Your task to perform on an android device: allow notifications from all sites in the chrome app Image 0: 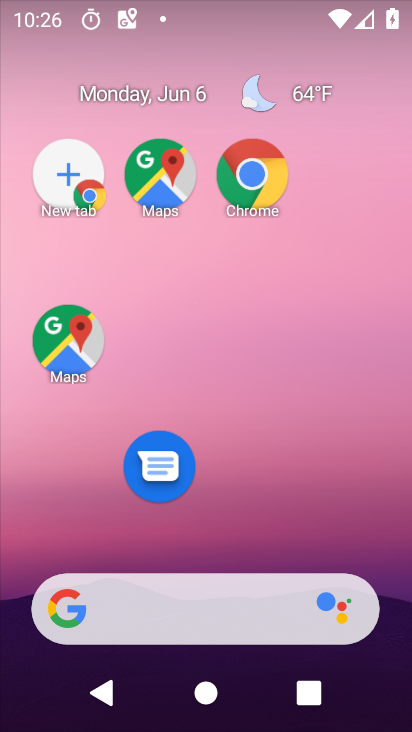
Step 0: drag from (209, 643) to (111, 99)
Your task to perform on an android device: allow notifications from all sites in the chrome app Image 1: 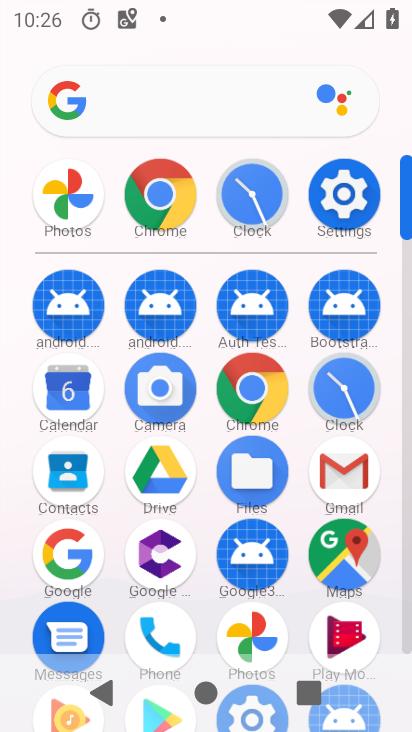
Step 1: click (244, 391)
Your task to perform on an android device: allow notifications from all sites in the chrome app Image 2: 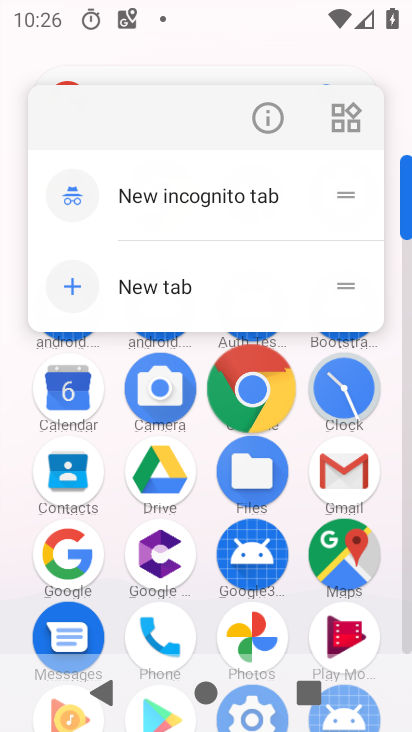
Step 2: click (250, 392)
Your task to perform on an android device: allow notifications from all sites in the chrome app Image 3: 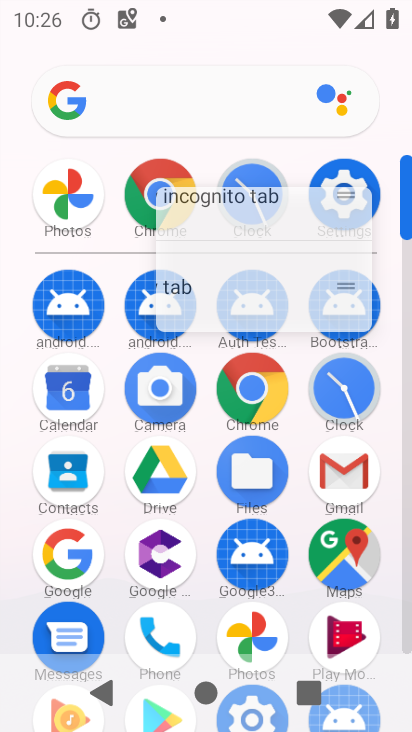
Step 3: click (255, 392)
Your task to perform on an android device: allow notifications from all sites in the chrome app Image 4: 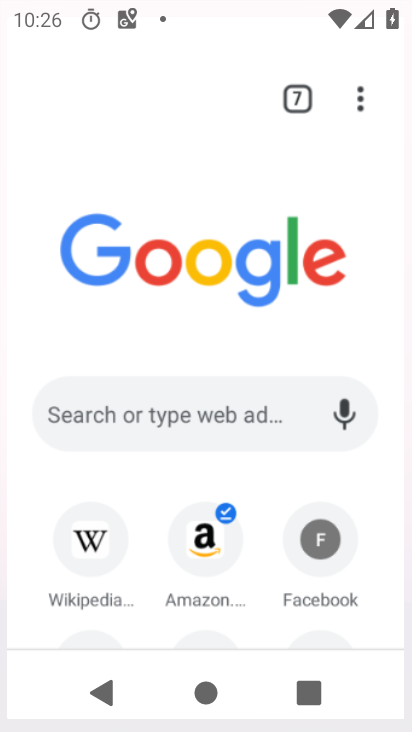
Step 4: click (259, 394)
Your task to perform on an android device: allow notifications from all sites in the chrome app Image 5: 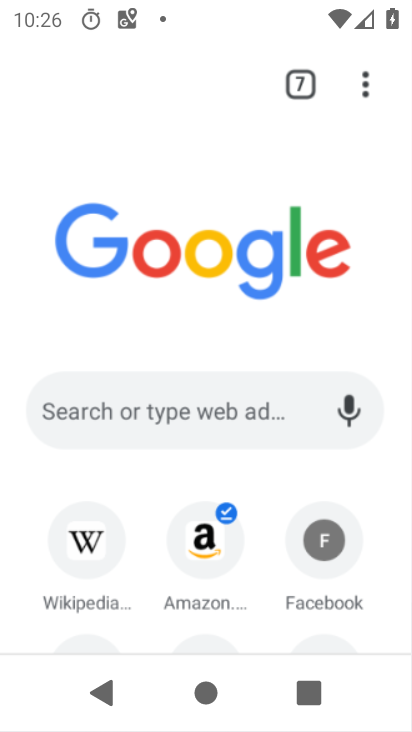
Step 5: click (260, 394)
Your task to perform on an android device: allow notifications from all sites in the chrome app Image 6: 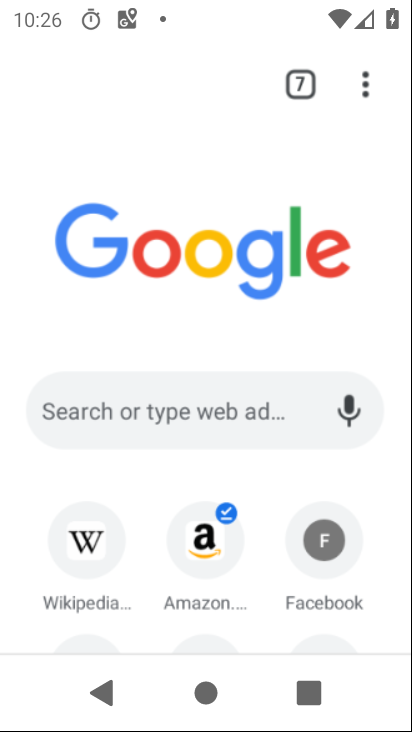
Step 6: click (255, 399)
Your task to perform on an android device: allow notifications from all sites in the chrome app Image 7: 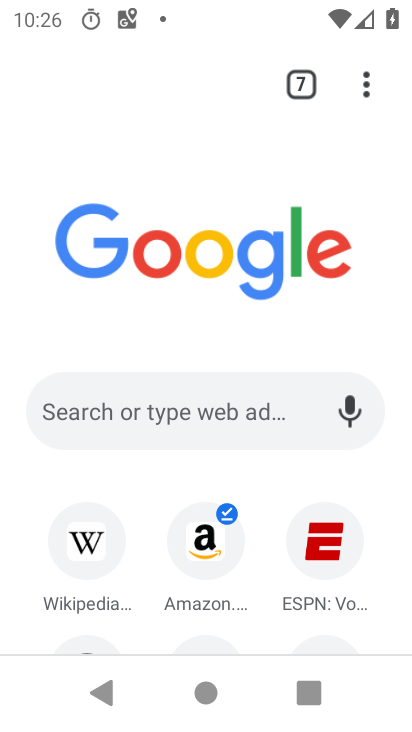
Step 7: drag from (359, 85) to (71, 516)
Your task to perform on an android device: allow notifications from all sites in the chrome app Image 8: 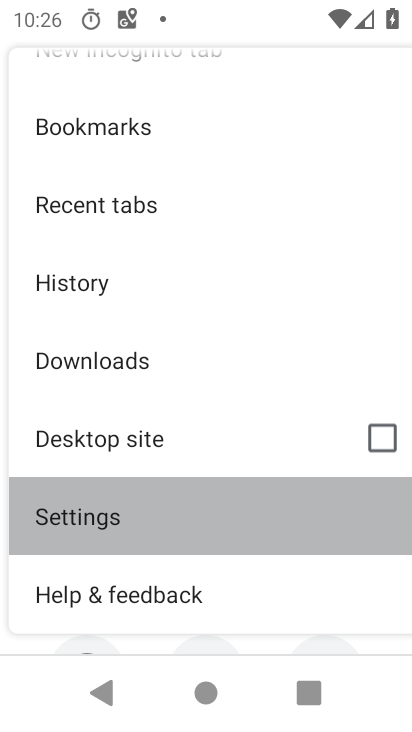
Step 8: click (67, 519)
Your task to perform on an android device: allow notifications from all sites in the chrome app Image 9: 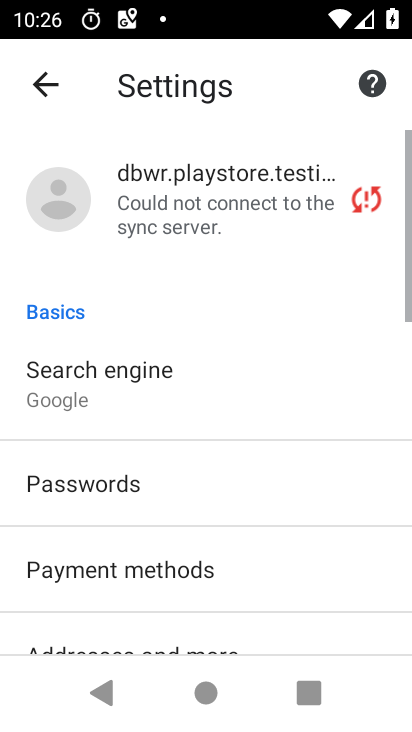
Step 9: drag from (170, 507) to (146, 175)
Your task to perform on an android device: allow notifications from all sites in the chrome app Image 10: 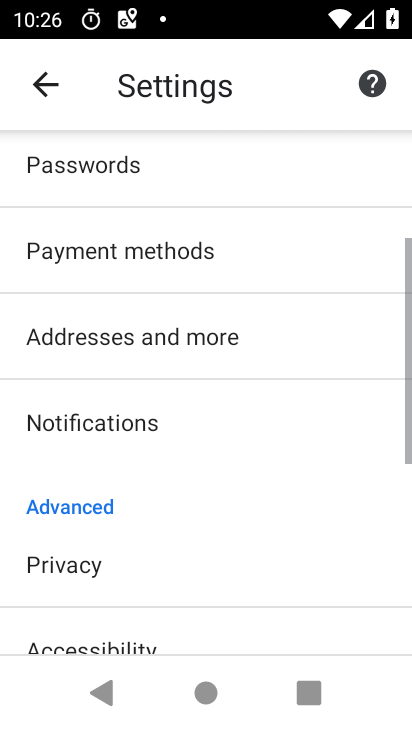
Step 10: drag from (144, 506) to (142, 172)
Your task to perform on an android device: allow notifications from all sites in the chrome app Image 11: 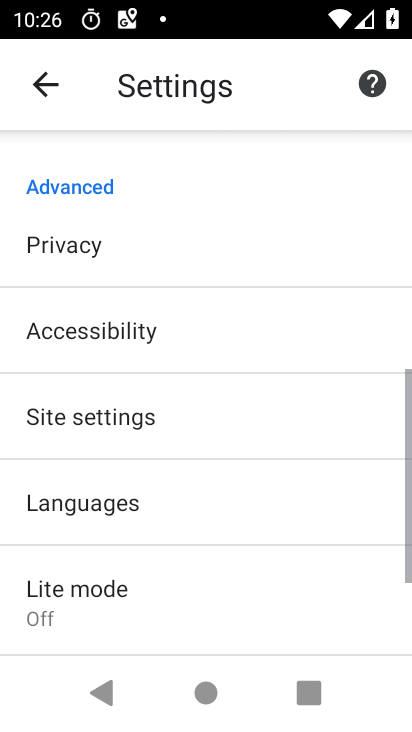
Step 11: drag from (148, 521) to (137, 124)
Your task to perform on an android device: allow notifications from all sites in the chrome app Image 12: 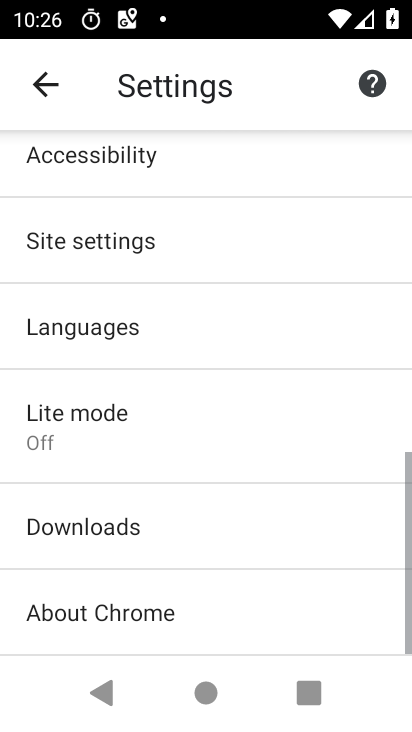
Step 12: click (62, 253)
Your task to perform on an android device: allow notifications from all sites in the chrome app Image 13: 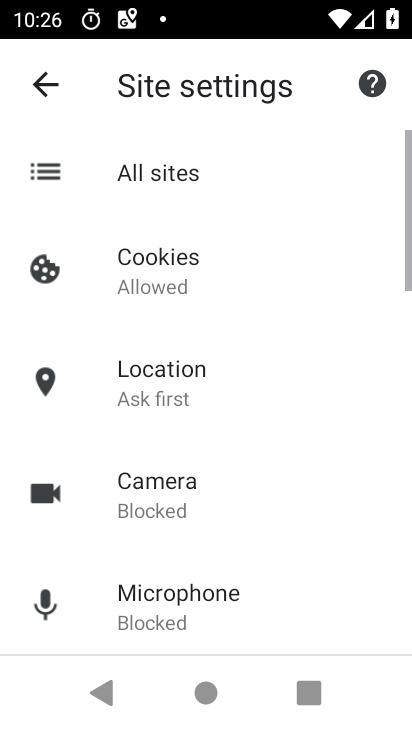
Step 13: click (161, 175)
Your task to perform on an android device: allow notifications from all sites in the chrome app Image 14: 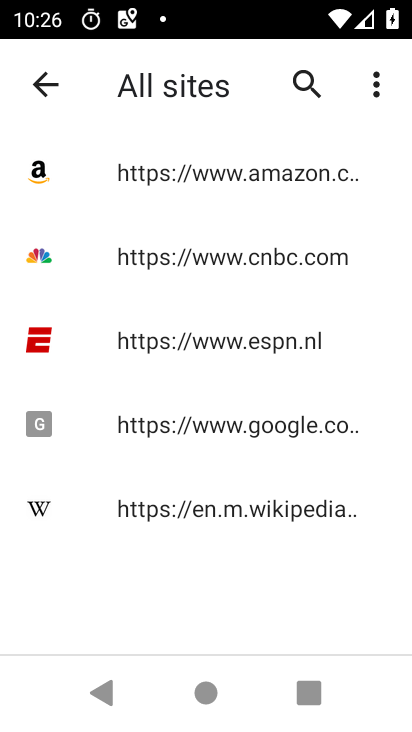
Step 14: click (183, 181)
Your task to perform on an android device: allow notifications from all sites in the chrome app Image 15: 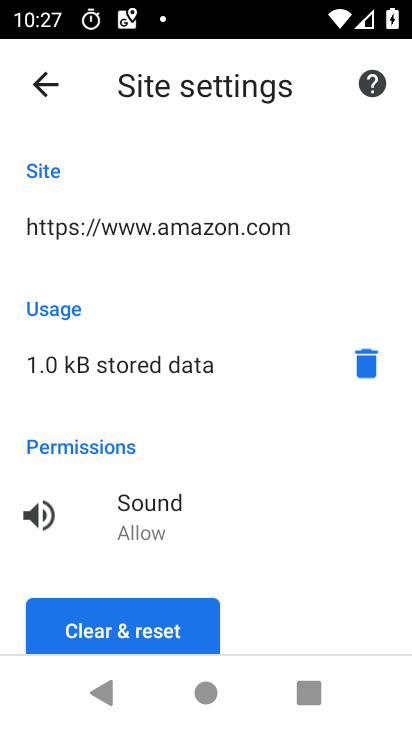
Step 15: task complete